Your task to perform on an android device: open device folders in google photos Image 0: 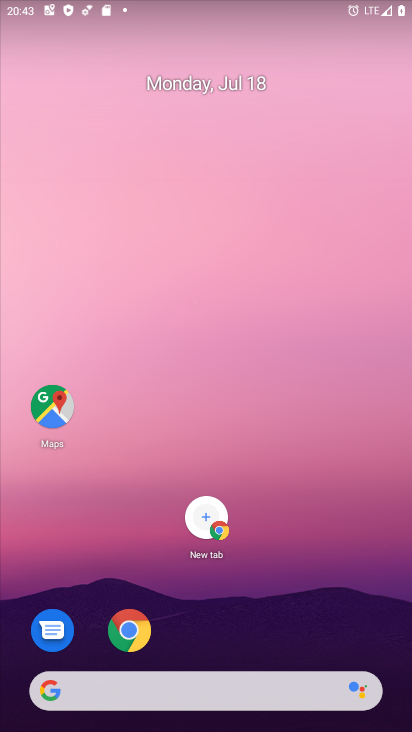
Step 0: click (209, 257)
Your task to perform on an android device: open device folders in google photos Image 1: 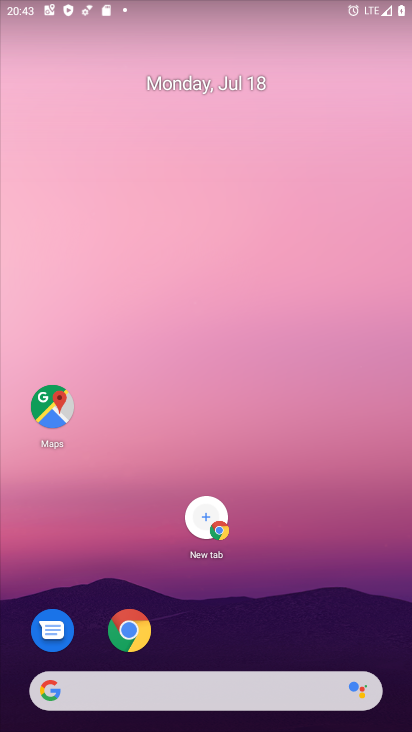
Step 1: drag from (207, 674) to (246, 199)
Your task to perform on an android device: open device folders in google photos Image 2: 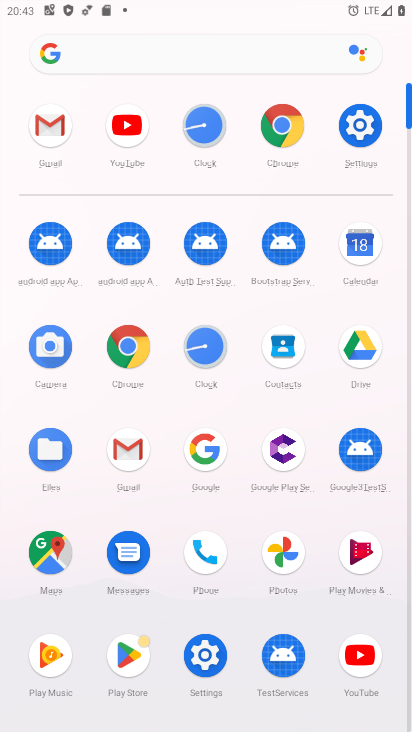
Step 2: click (285, 556)
Your task to perform on an android device: open device folders in google photos Image 3: 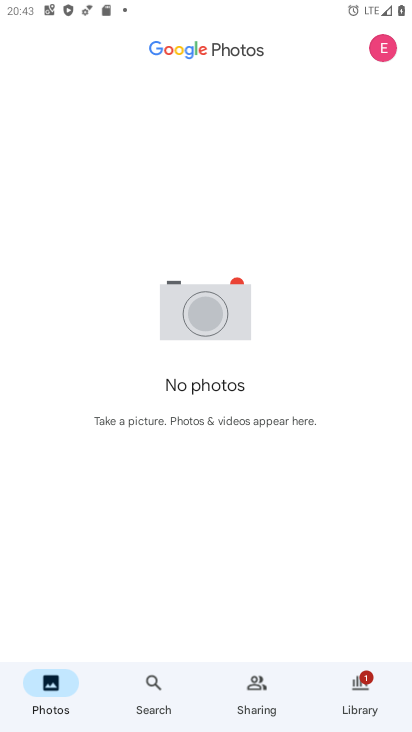
Step 3: drag from (288, 184) to (266, 530)
Your task to perform on an android device: open device folders in google photos Image 4: 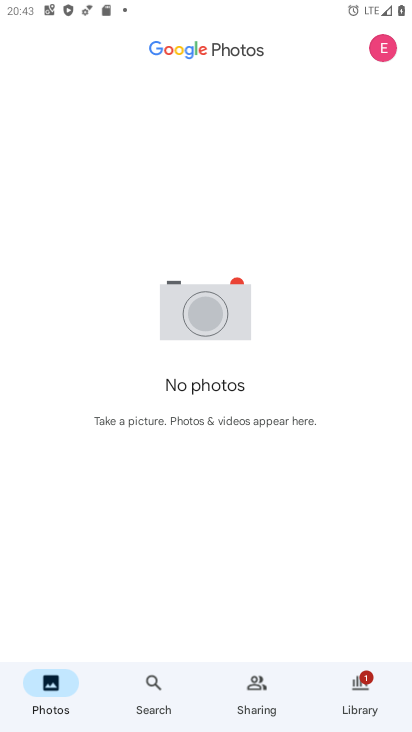
Step 4: click (380, 45)
Your task to perform on an android device: open device folders in google photos Image 5: 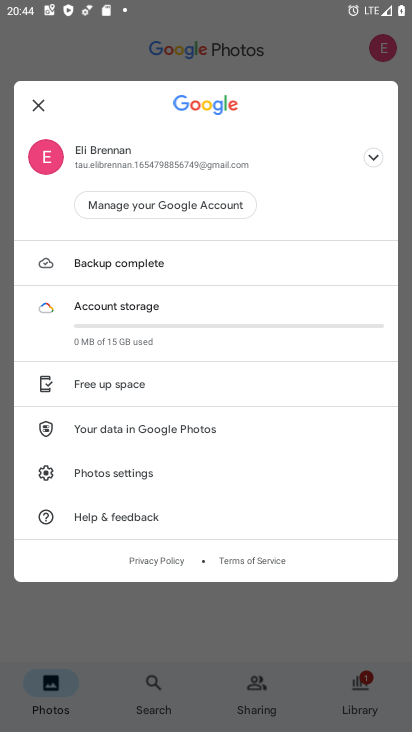
Step 5: click (119, 473)
Your task to perform on an android device: open device folders in google photos Image 6: 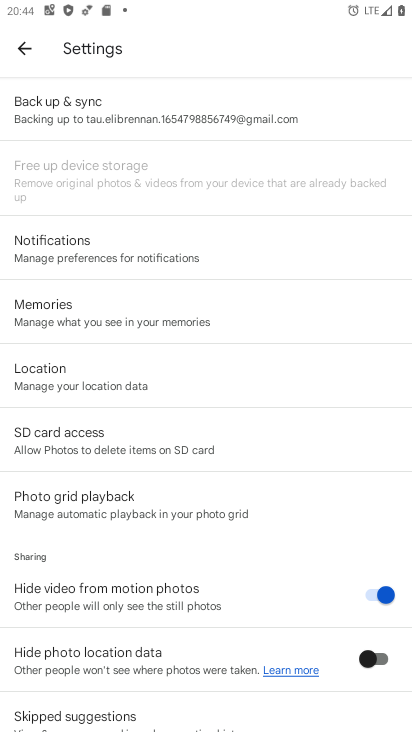
Step 6: task complete